Your task to perform on an android device: Show me recent news Image 0: 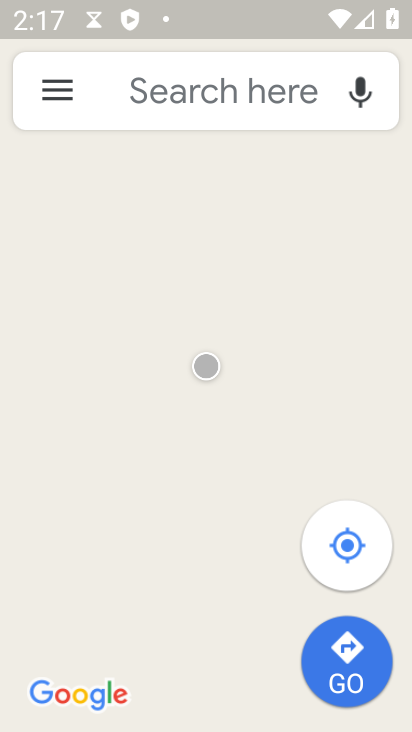
Step 0: press home button
Your task to perform on an android device: Show me recent news Image 1: 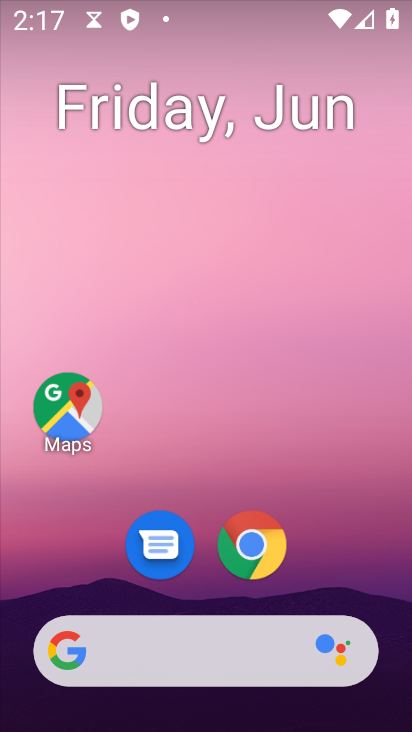
Step 1: drag from (206, 548) to (196, 661)
Your task to perform on an android device: Show me recent news Image 2: 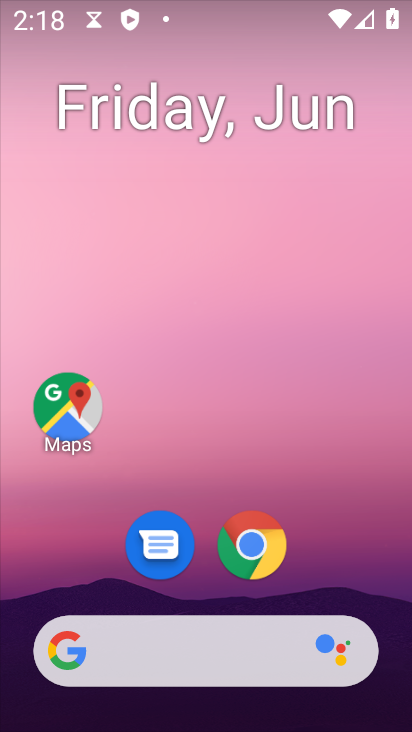
Step 2: click (198, 650)
Your task to perform on an android device: Show me recent news Image 3: 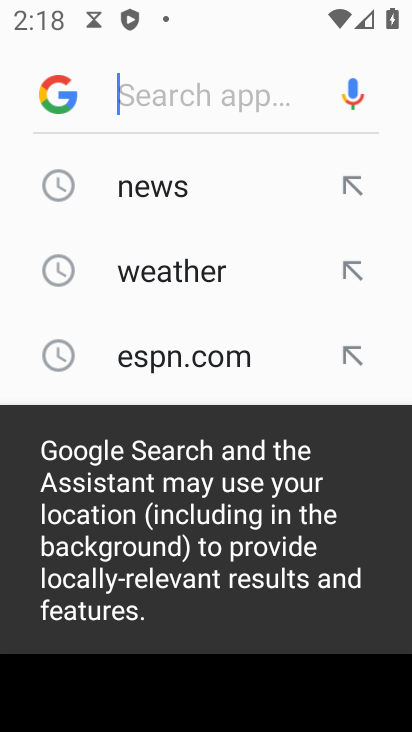
Step 3: click (136, 89)
Your task to perform on an android device: Show me recent news Image 4: 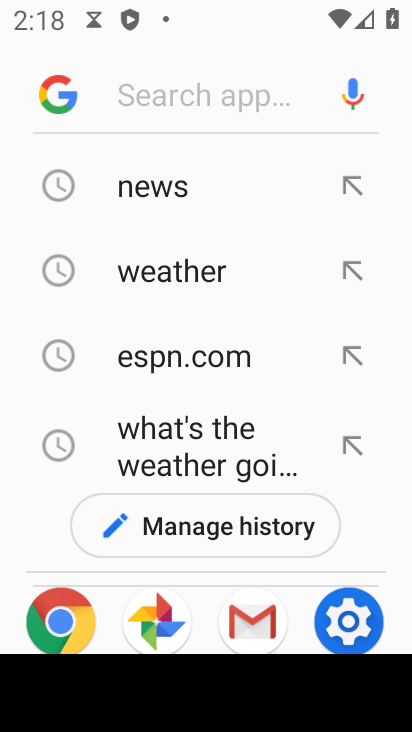
Step 4: type "recent news"
Your task to perform on an android device: Show me recent news Image 5: 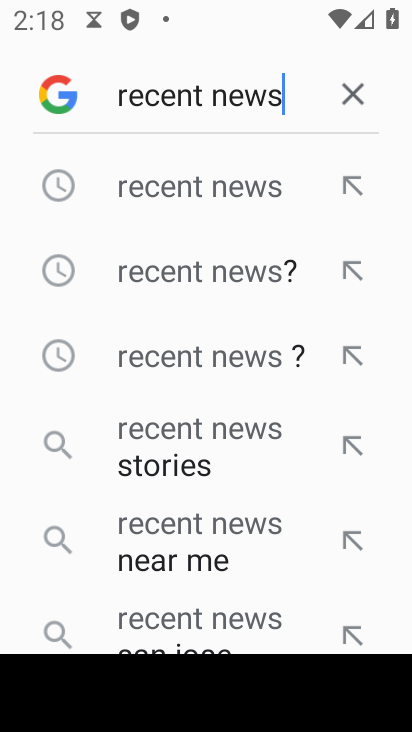
Step 5: click (182, 205)
Your task to perform on an android device: Show me recent news Image 6: 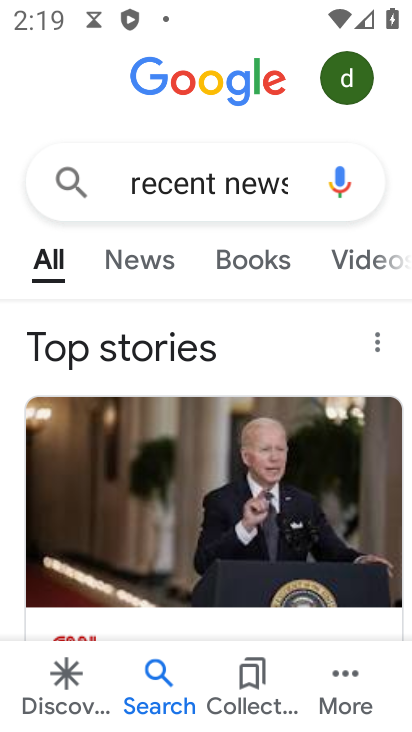
Step 6: task complete